Your task to perform on an android device: Do I have any events this weekend? Image 0: 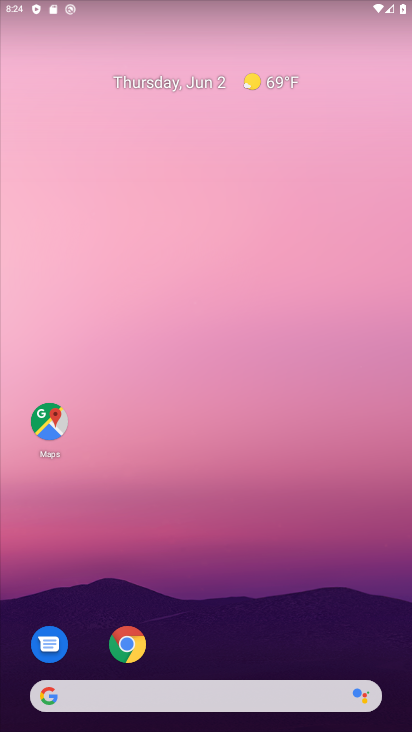
Step 0: drag from (262, 608) to (191, 13)
Your task to perform on an android device: Do I have any events this weekend? Image 1: 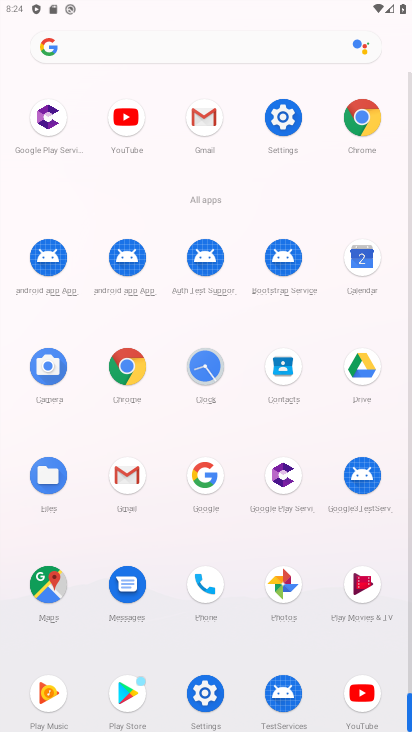
Step 1: drag from (1, 596) to (0, 218)
Your task to perform on an android device: Do I have any events this weekend? Image 2: 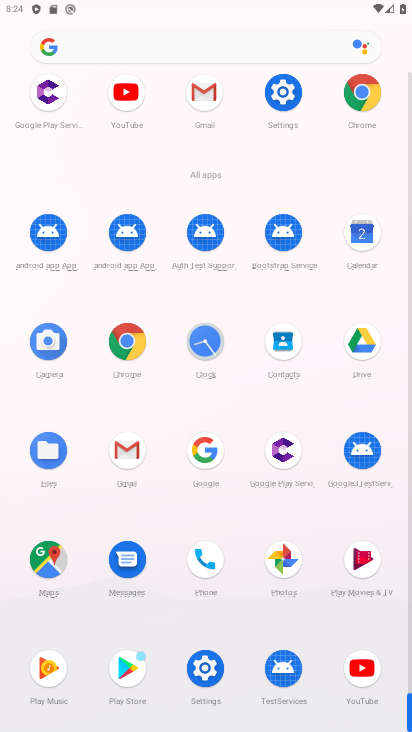
Step 2: click (364, 231)
Your task to perform on an android device: Do I have any events this weekend? Image 3: 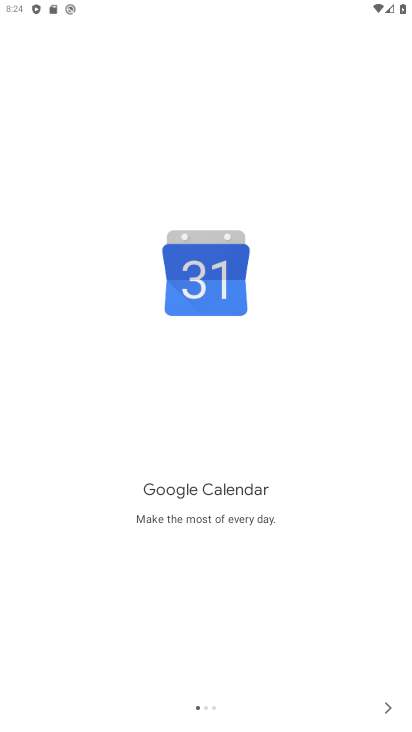
Step 3: click (389, 709)
Your task to perform on an android device: Do I have any events this weekend? Image 4: 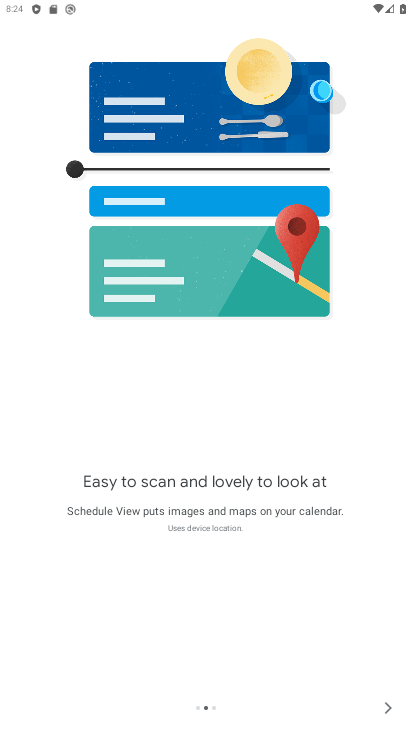
Step 4: click (370, 704)
Your task to perform on an android device: Do I have any events this weekend? Image 5: 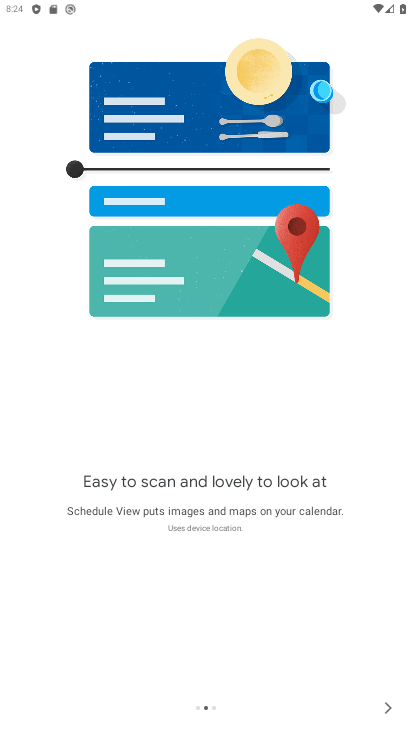
Step 5: click (386, 703)
Your task to perform on an android device: Do I have any events this weekend? Image 6: 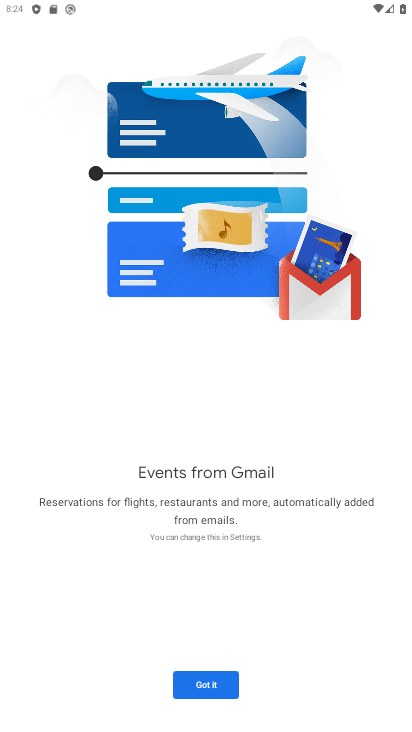
Step 6: click (214, 687)
Your task to perform on an android device: Do I have any events this weekend? Image 7: 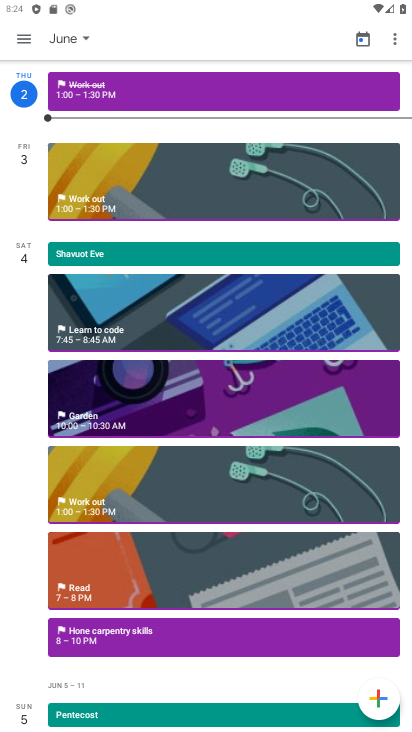
Step 7: click (59, 38)
Your task to perform on an android device: Do I have any events this weekend? Image 8: 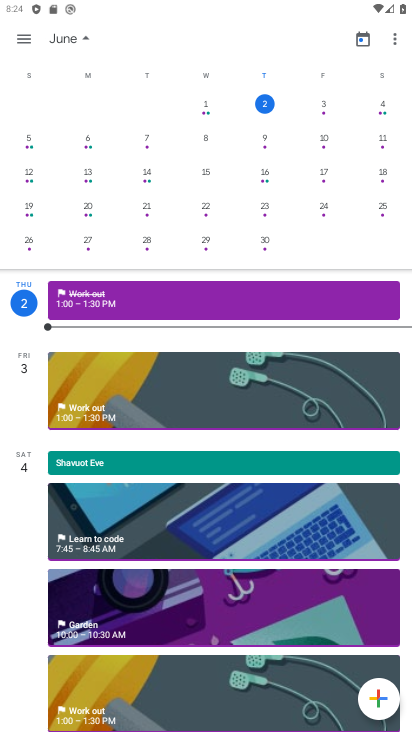
Step 8: click (379, 104)
Your task to perform on an android device: Do I have any events this weekend? Image 9: 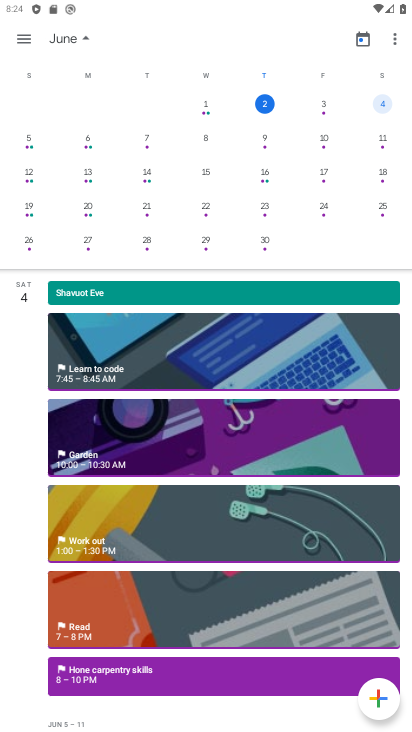
Step 9: click (21, 41)
Your task to perform on an android device: Do I have any events this weekend? Image 10: 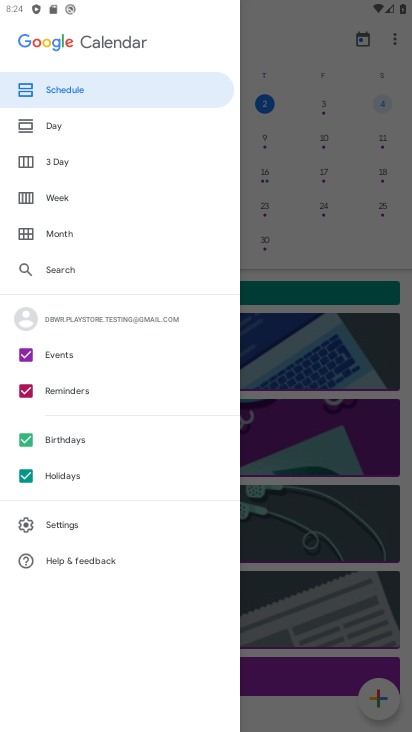
Step 10: click (70, 195)
Your task to perform on an android device: Do I have any events this weekend? Image 11: 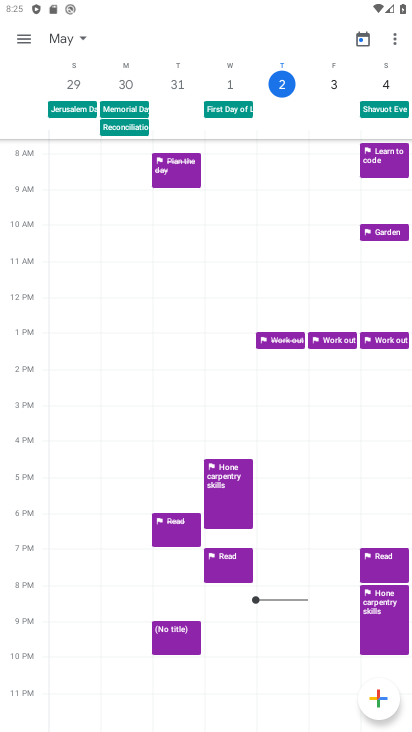
Step 11: click (383, 75)
Your task to perform on an android device: Do I have any events this weekend? Image 12: 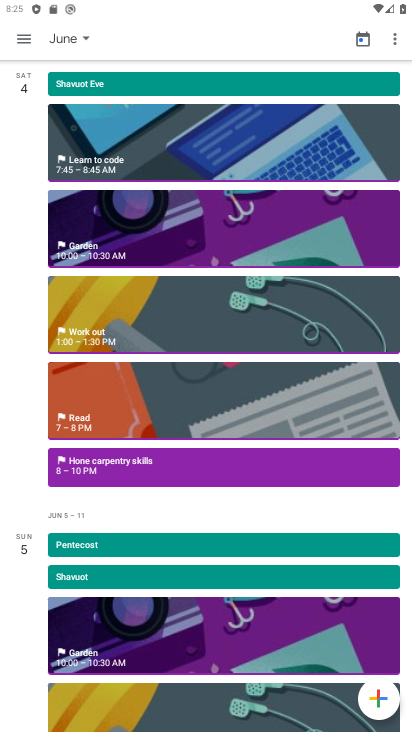
Step 12: task complete